Your task to perform on an android device: turn on priority inbox in the gmail app Image 0: 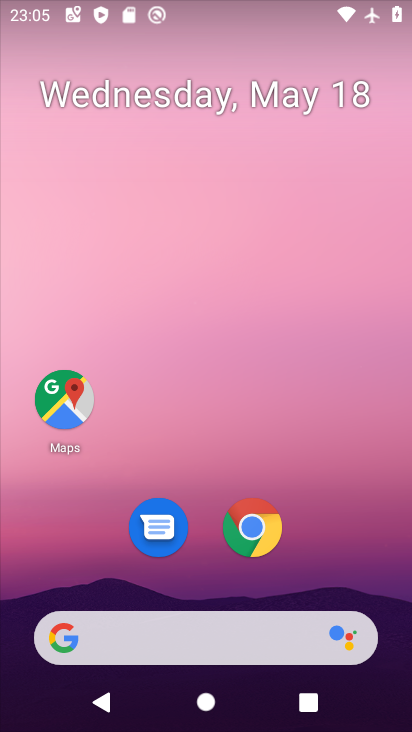
Step 0: drag from (353, 546) to (357, 110)
Your task to perform on an android device: turn on priority inbox in the gmail app Image 1: 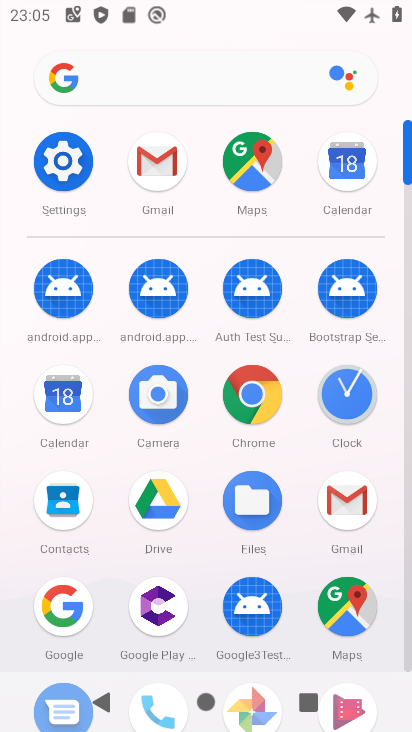
Step 1: click (153, 179)
Your task to perform on an android device: turn on priority inbox in the gmail app Image 2: 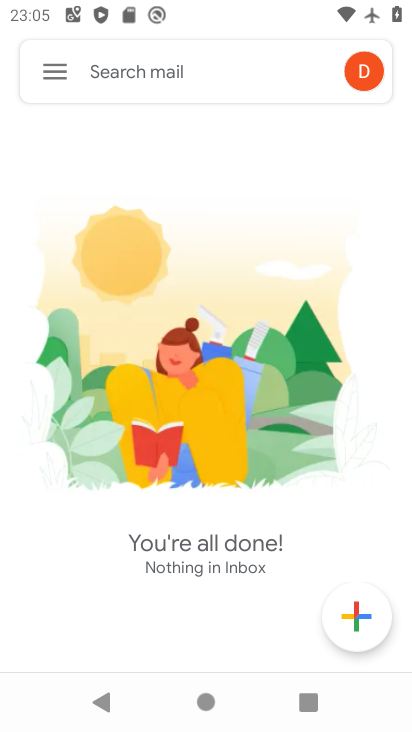
Step 2: click (54, 70)
Your task to perform on an android device: turn on priority inbox in the gmail app Image 3: 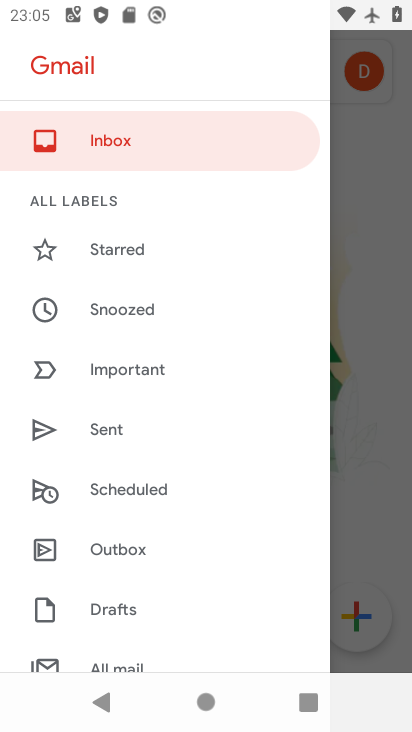
Step 3: drag from (139, 541) to (174, 407)
Your task to perform on an android device: turn on priority inbox in the gmail app Image 4: 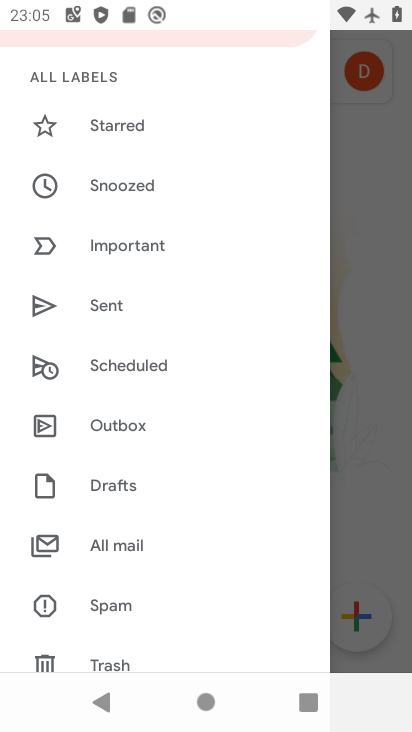
Step 4: drag from (126, 613) to (190, 286)
Your task to perform on an android device: turn on priority inbox in the gmail app Image 5: 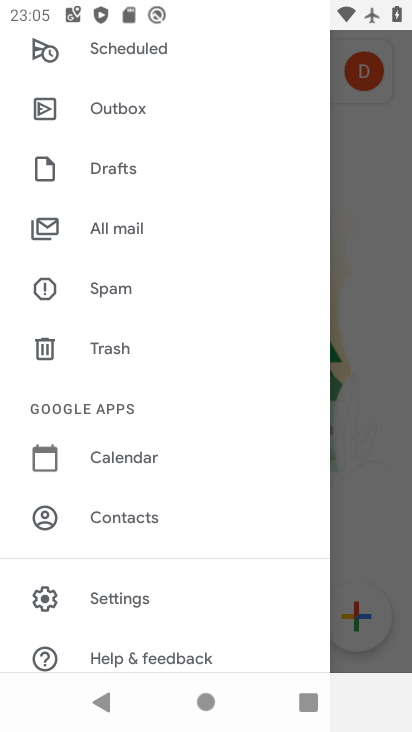
Step 5: click (183, 572)
Your task to perform on an android device: turn on priority inbox in the gmail app Image 6: 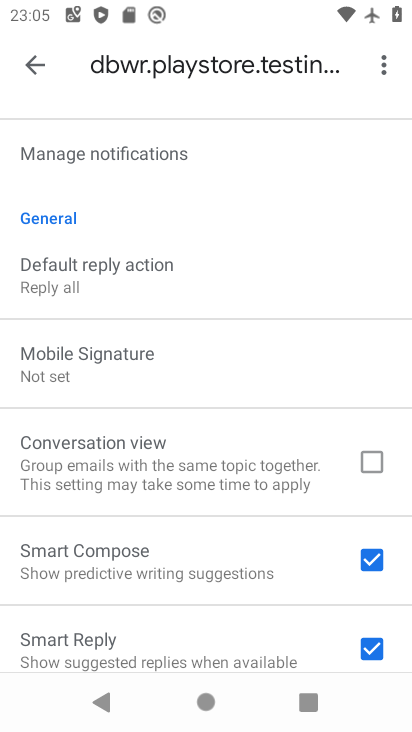
Step 6: drag from (180, 286) to (192, 613)
Your task to perform on an android device: turn on priority inbox in the gmail app Image 7: 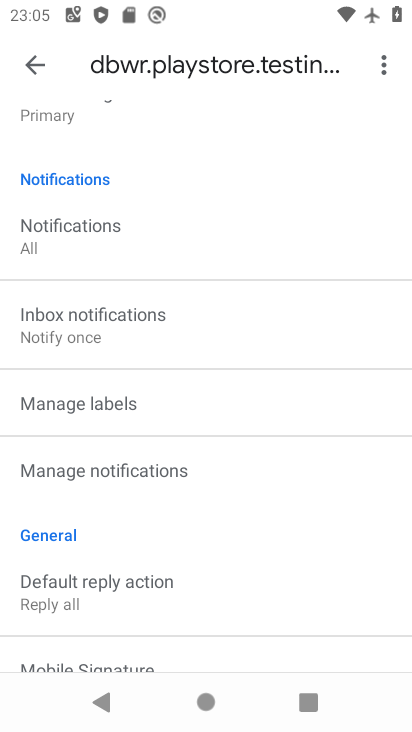
Step 7: drag from (194, 242) to (206, 544)
Your task to perform on an android device: turn on priority inbox in the gmail app Image 8: 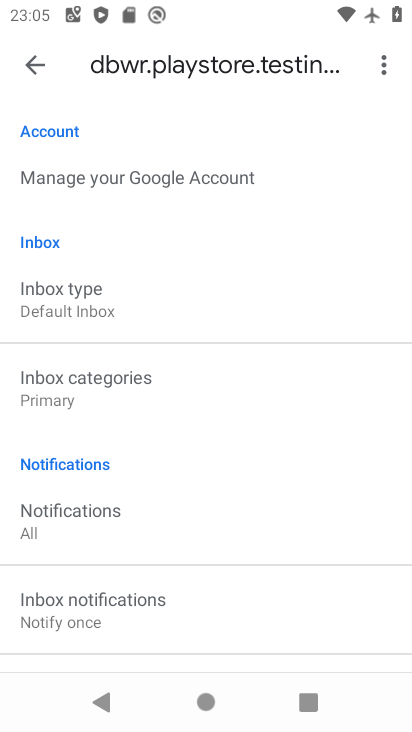
Step 8: drag from (199, 244) to (196, 517)
Your task to perform on an android device: turn on priority inbox in the gmail app Image 9: 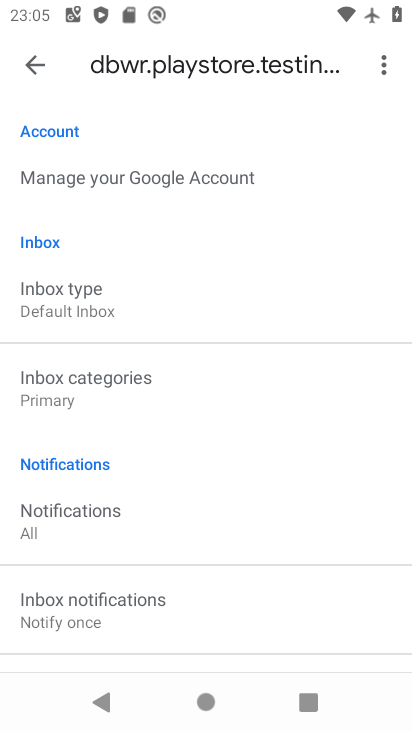
Step 9: click (147, 367)
Your task to perform on an android device: turn on priority inbox in the gmail app Image 10: 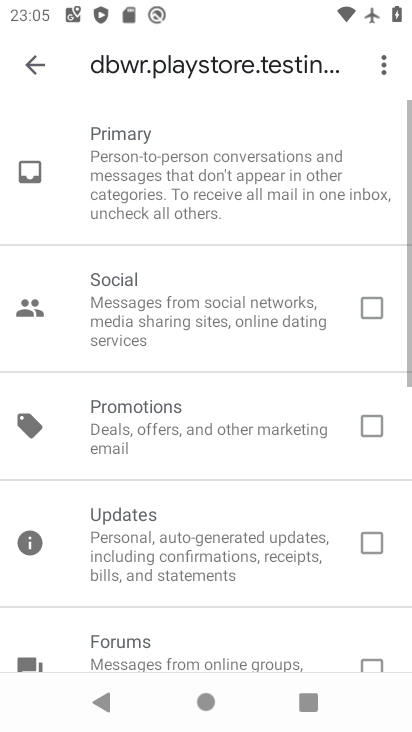
Step 10: click (27, 63)
Your task to perform on an android device: turn on priority inbox in the gmail app Image 11: 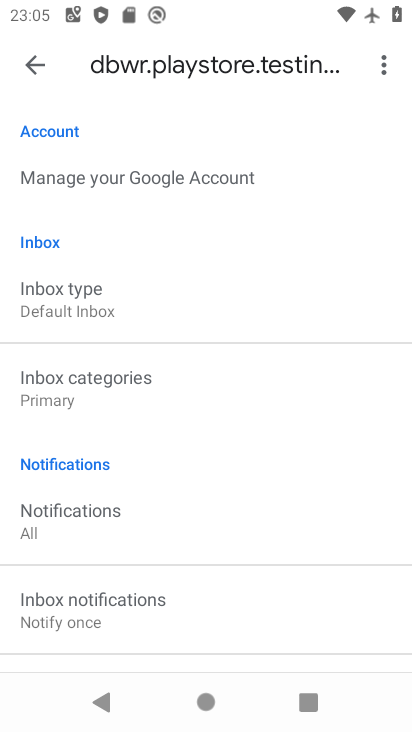
Step 11: click (113, 284)
Your task to perform on an android device: turn on priority inbox in the gmail app Image 12: 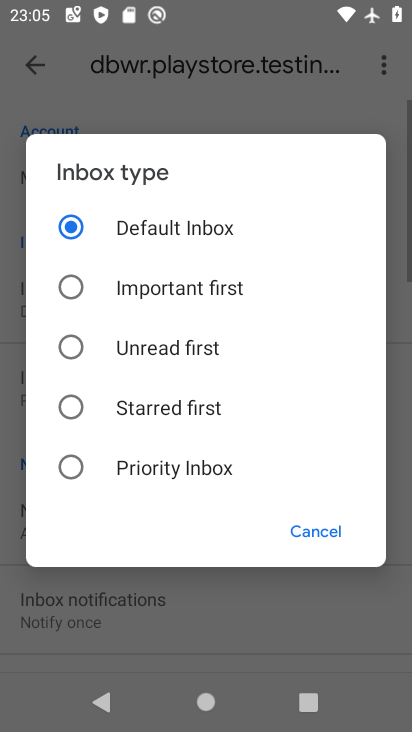
Step 12: click (161, 458)
Your task to perform on an android device: turn on priority inbox in the gmail app Image 13: 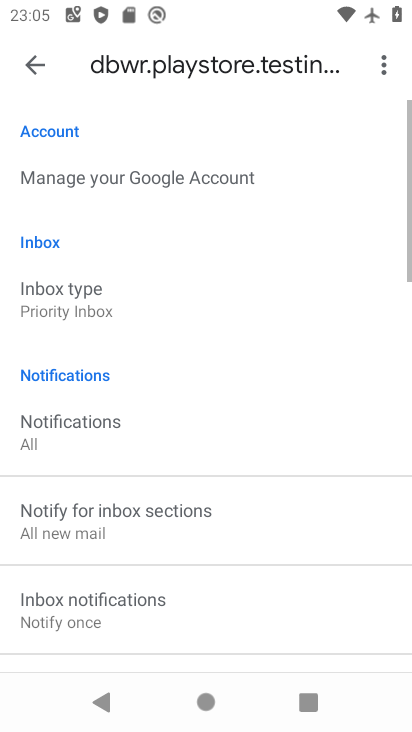
Step 13: task complete